Your task to perform on an android device: turn on location history Image 0: 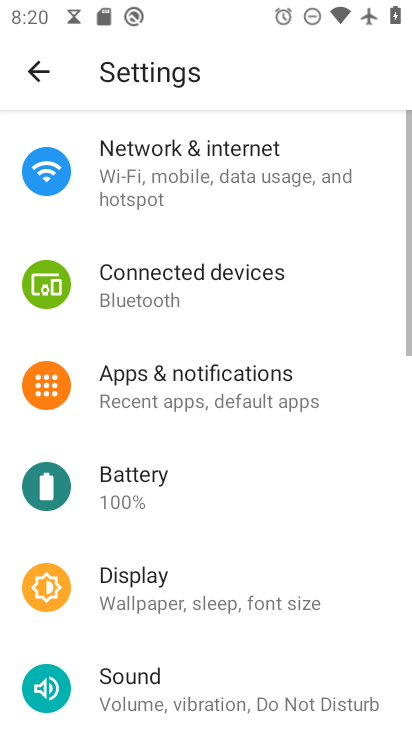
Step 0: press home button
Your task to perform on an android device: turn on location history Image 1: 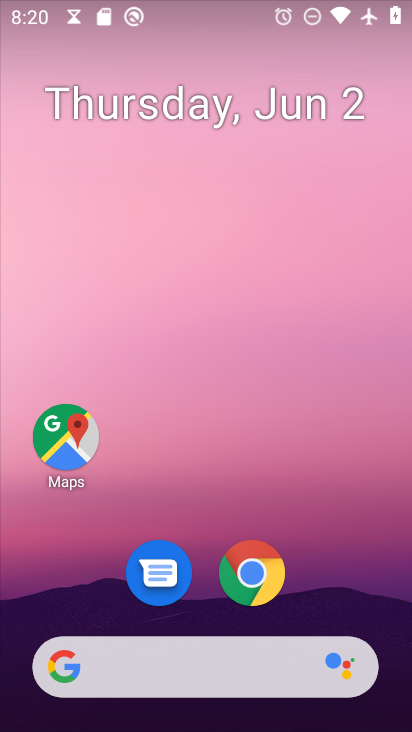
Step 1: click (61, 426)
Your task to perform on an android device: turn on location history Image 2: 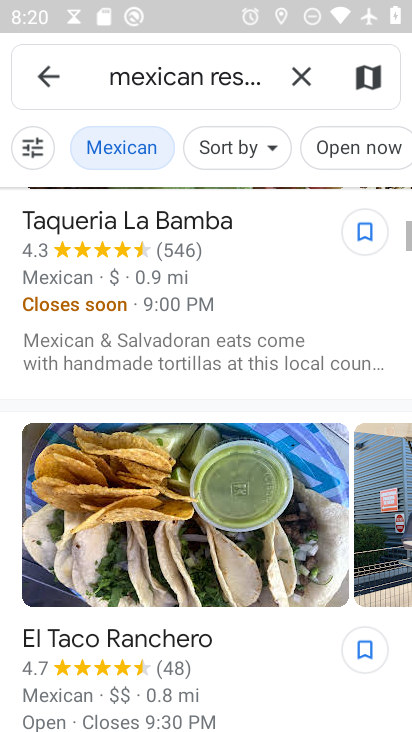
Step 2: click (45, 74)
Your task to perform on an android device: turn on location history Image 3: 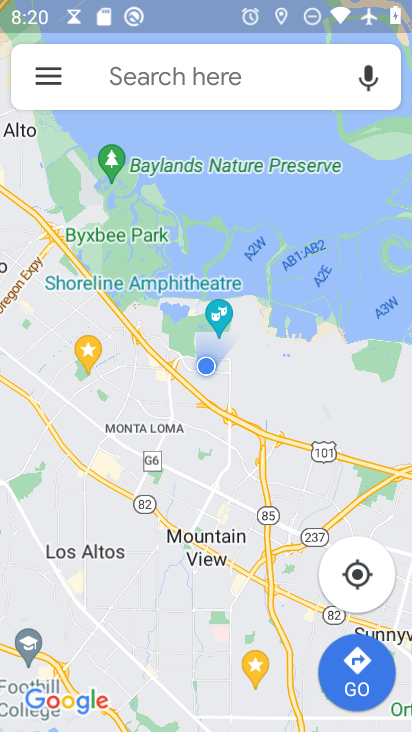
Step 3: click (45, 74)
Your task to perform on an android device: turn on location history Image 4: 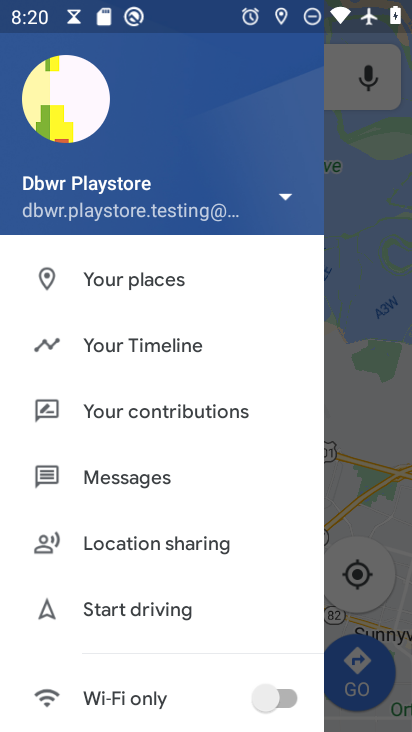
Step 4: click (137, 345)
Your task to perform on an android device: turn on location history Image 5: 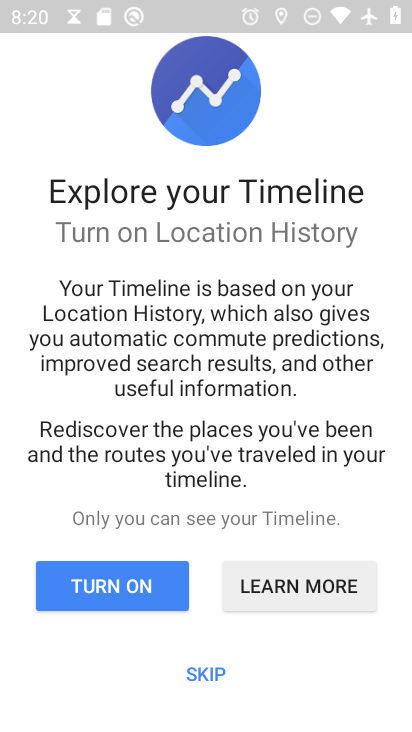
Step 5: click (212, 670)
Your task to perform on an android device: turn on location history Image 6: 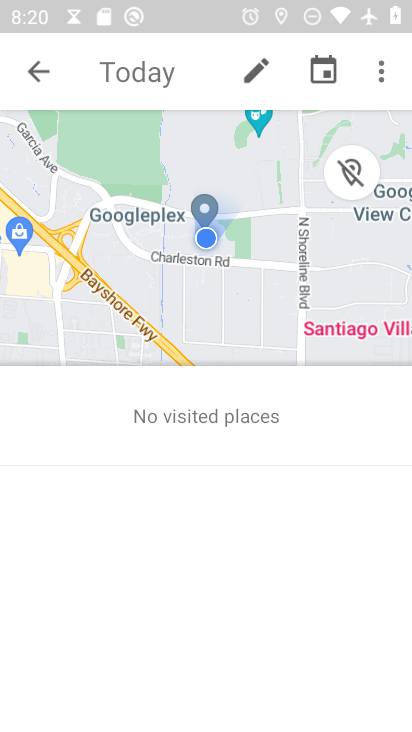
Step 6: click (388, 75)
Your task to perform on an android device: turn on location history Image 7: 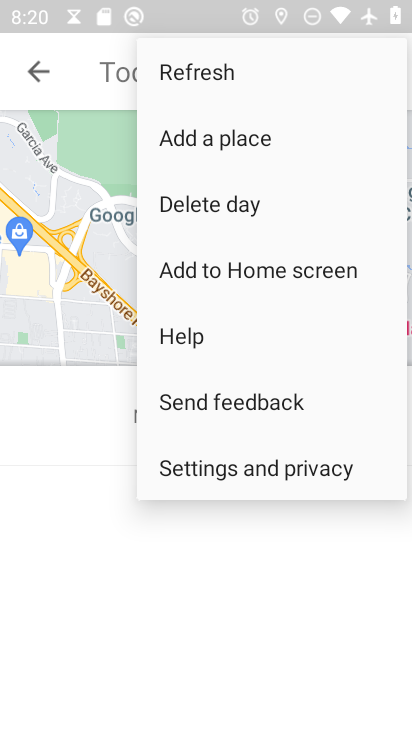
Step 7: click (250, 467)
Your task to perform on an android device: turn on location history Image 8: 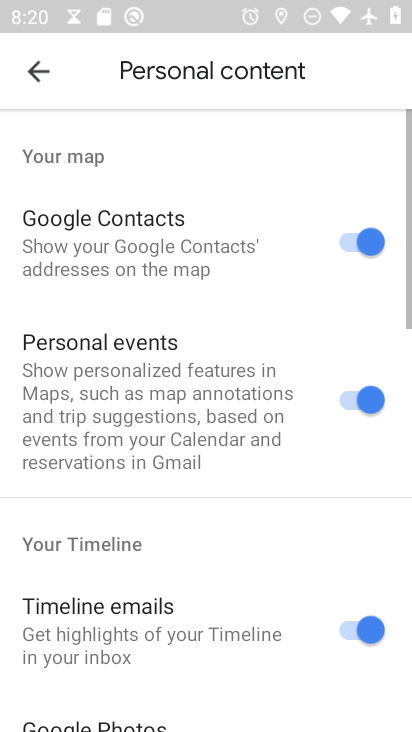
Step 8: drag from (190, 623) to (248, 126)
Your task to perform on an android device: turn on location history Image 9: 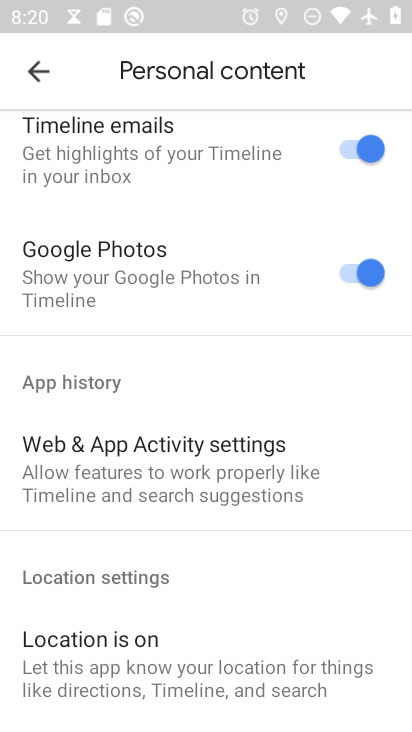
Step 9: drag from (179, 602) to (310, 285)
Your task to perform on an android device: turn on location history Image 10: 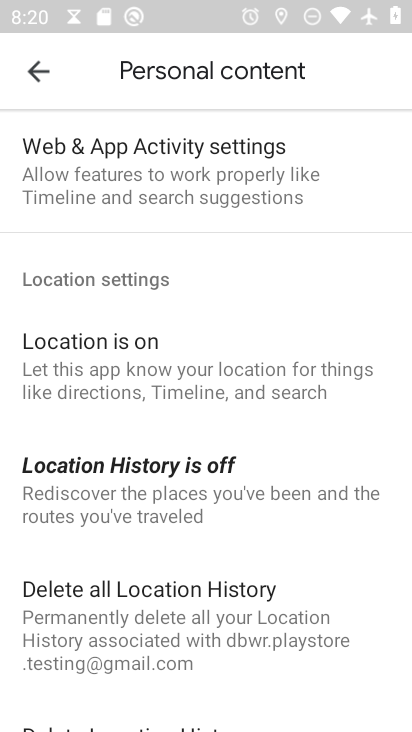
Step 10: click (179, 485)
Your task to perform on an android device: turn on location history Image 11: 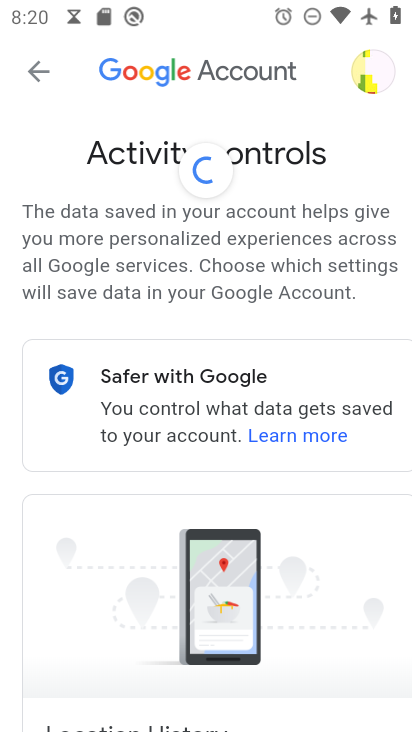
Step 11: task complete